Your task to perform on an android device: turn smart compose on in the gmail app Image 0: 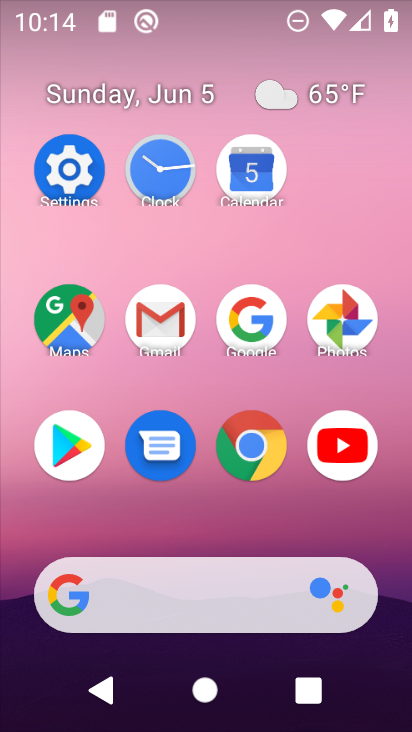
Step 0: click (157, 339)
Your task to perform on an android device: turn smart compose on in the gmail app Image 1: 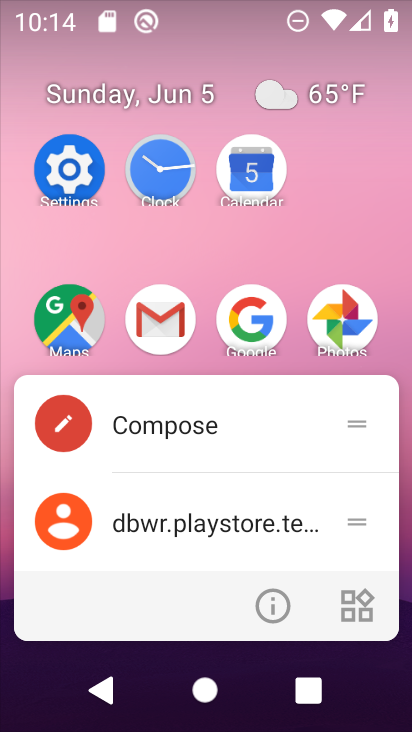
Step 1: click (164, 317)
Your task to perform on an android device: turn smart compose on in the gmail app Image 2: 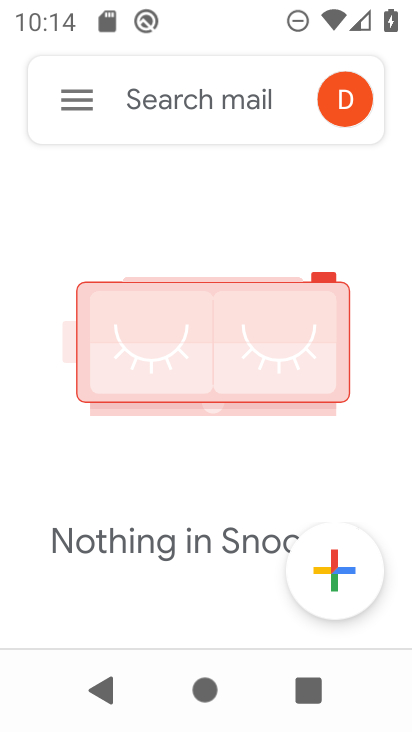
Step 2: click (76, 110)
Your task to perform on an android device: turn smart compose on in the gmail app Image 3: 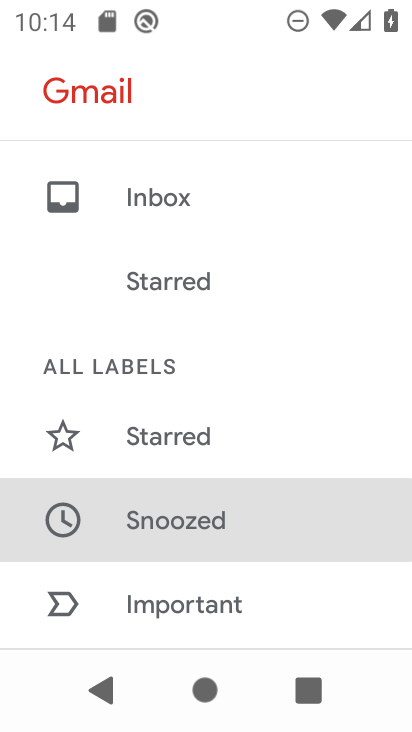
Step 3: drag from (184, 527) to (166, 186)
Your task to perform on an android device: turn smart compose on in the gmail app Image 4: 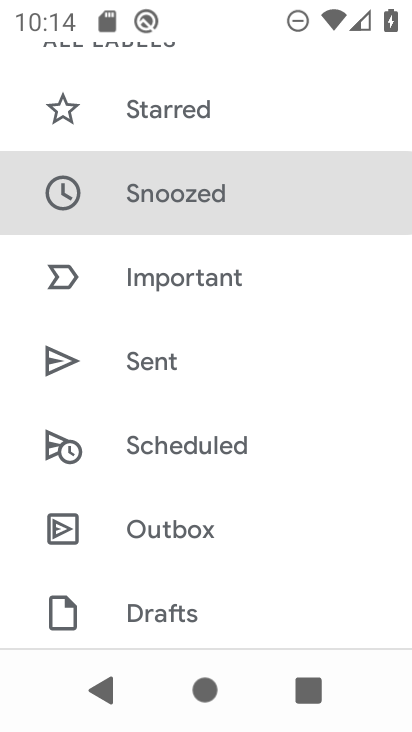
Step 4: drag from (263, 548) to (228, 243)
Your task to perform on an android device: turn smart compose on in the gmail app Image 5: 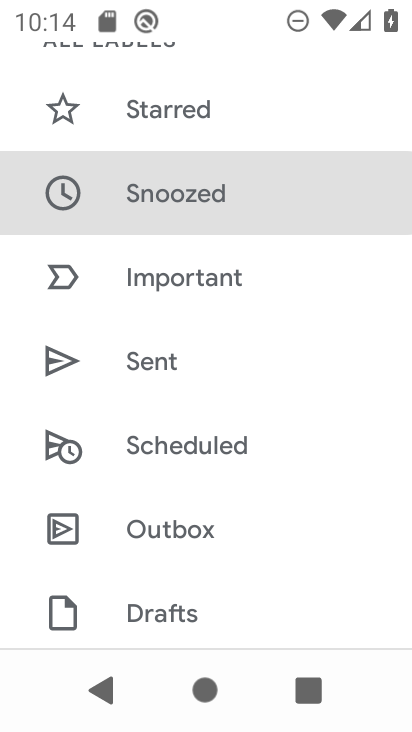
Step 5: drag from (302, 460) to (292, 71)
Your task to perform on an android device: turn smart compose on in the gmail app Image 6: 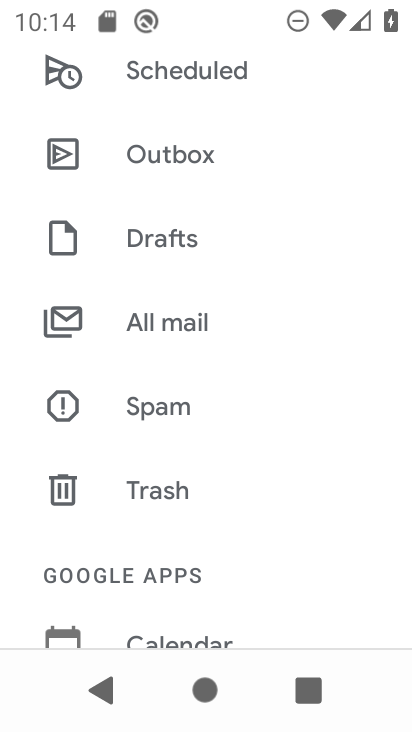
Step 6: drag from (299, 630) to (256, 245)
Your task to perform on an android device: turn smart compose on in the gmail app Image 7: 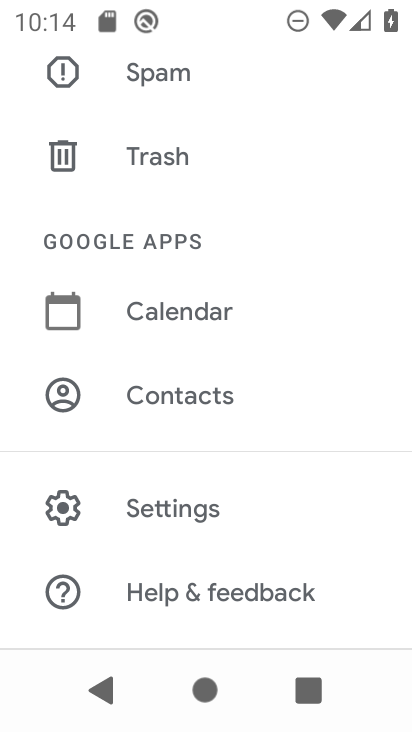
Step 7: drag from (287, 574) to (257, 314)
Your task to perform on an android device: turn smart compose on in the gmail app Image 8: 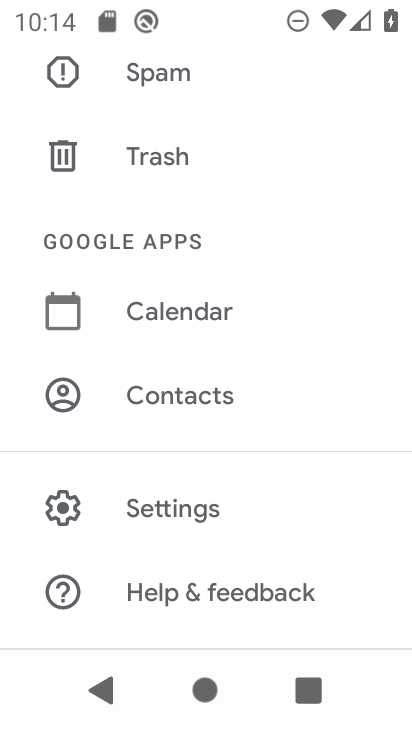
Step 8: click (262, 516)
Your task to perform on an android device: turn smart compose on in the gmail app Image 9: 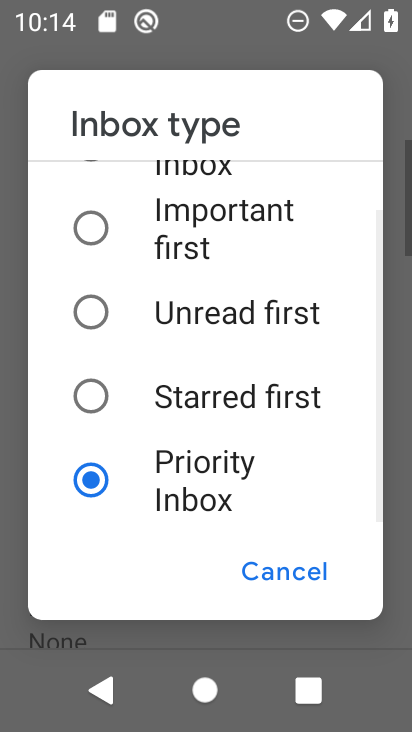
Step 9: click (314, 576)
Your task to perform on an android device: turn smart compose on in the gmail app Image 10: 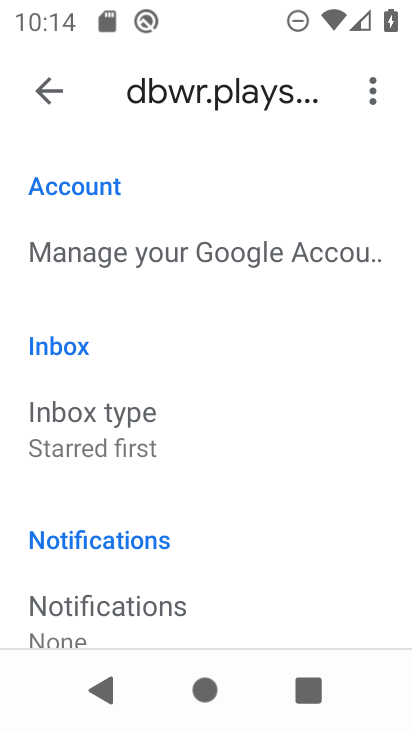
Step 10: task complete